Your task to perform on an android device: Show me popular games on the Play Store Image 0: 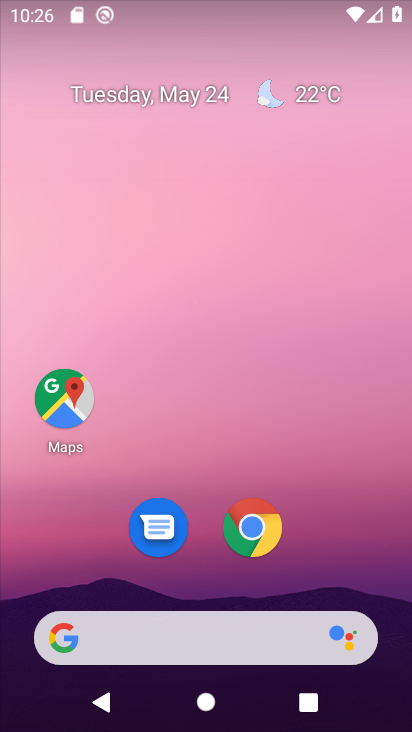
Step 0: press home button
Your task to perform on an android device: Show me popular games on the Play Store Image 1: 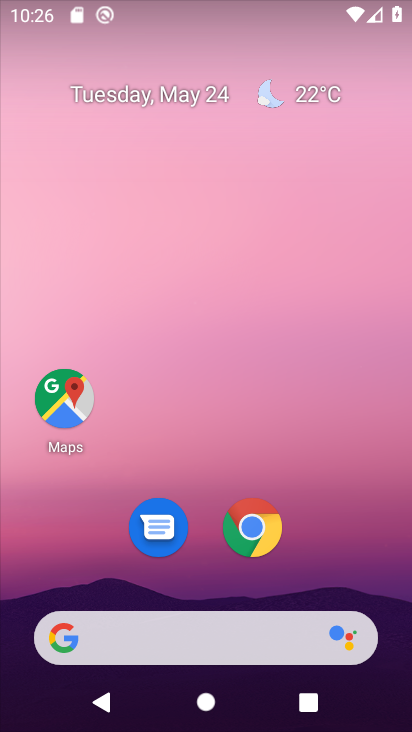
Step 1: drag from (210, 578) to (315, 182)
Your task to perform on an android device: Show me popular games on the Play Store Image 2: 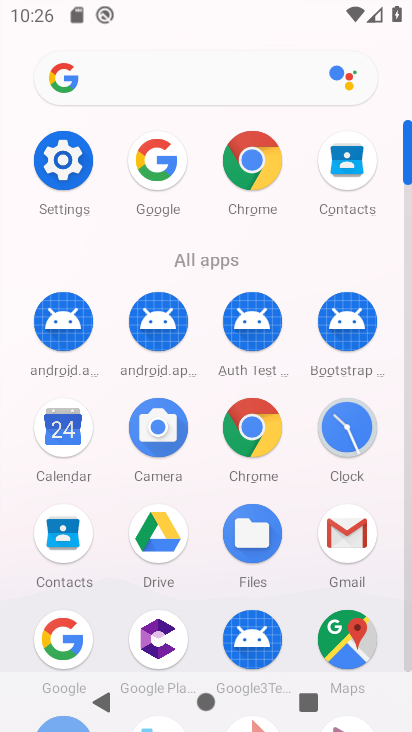
Step 2: drag from (200, 626) to (327, 149)
Your task to perform on an android device: Show me popular games on the Play Store Image 3: 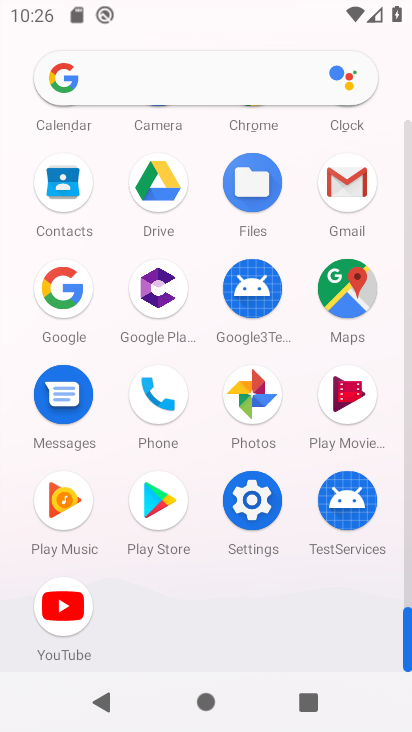
Step 3: click (161, 509)
Your task to perform on an android device: Show me popular games on the Play Store Image 4: 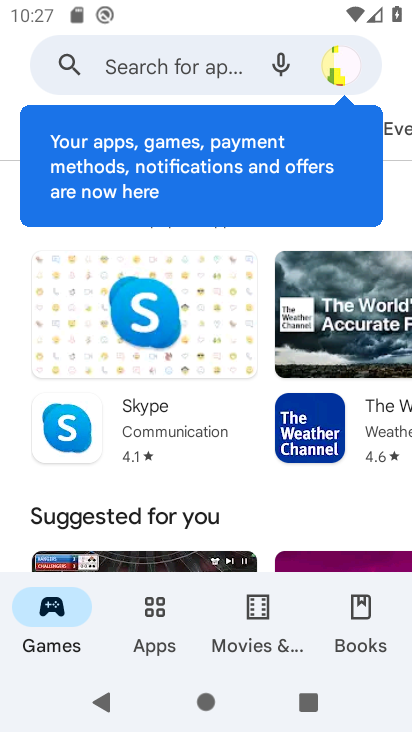
Step 4: drag from (155, 462) to (360, 98)
Your task to perform on an android device: Show me popular games on the Play Store Image 5: 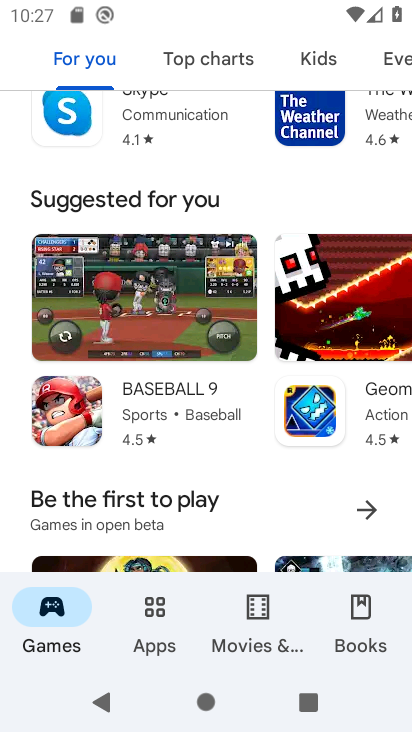
Step 5: drag from (185, 484) to (305, 147)
Your task to perform on an android device: Show me popular games on the Play Store Image 6: 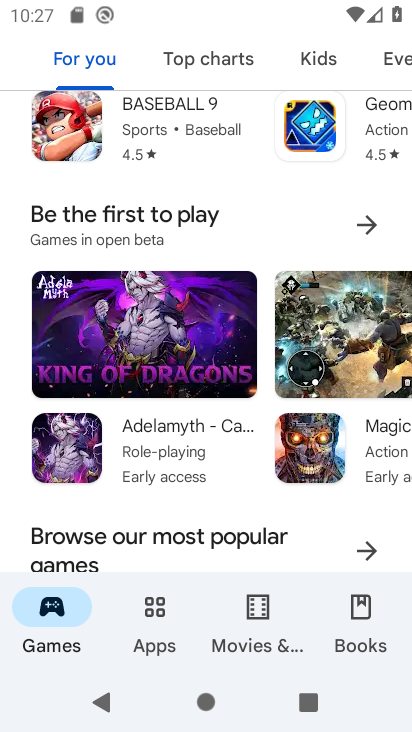
Step 6: drag from (174, 495) to (299, 270)
Your task to perform on an android device: Show me popular games on the Play Store Image 7: 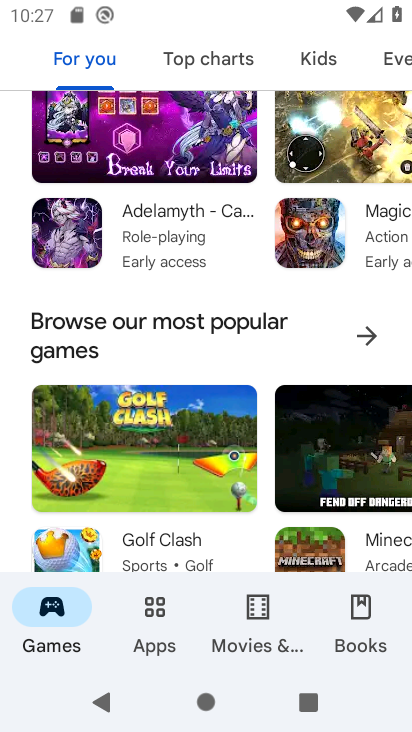
Step 7: click (229, 320)
Your task to perform on an android device: Show me popular games on the Play Store Image 8: 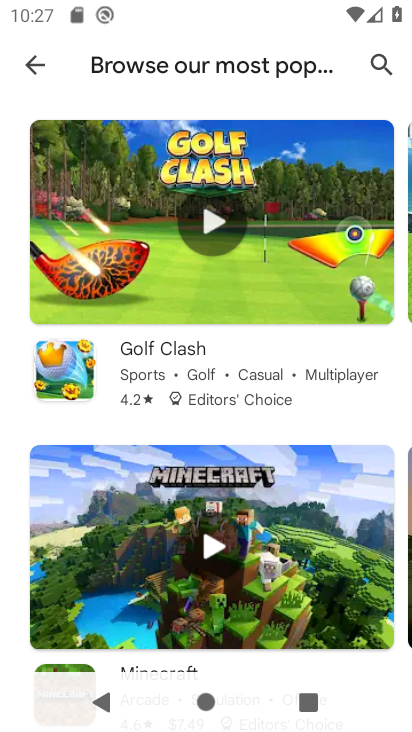
Step 8: task complete